Your task to perform on an android device: open a bookmark in the chrome app Image 0: 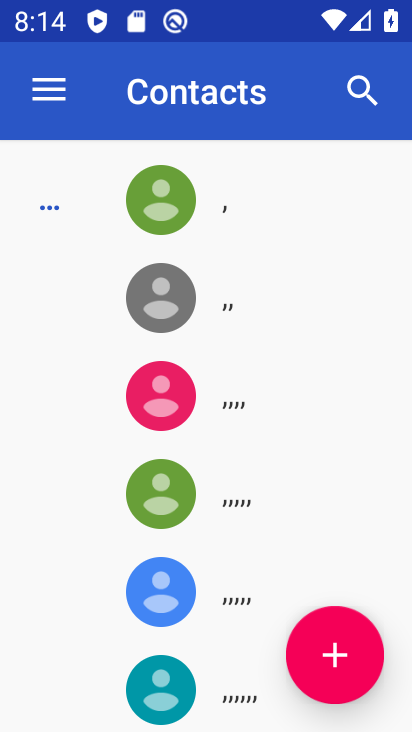
Step 0: press home button
Your task to perform on an android device: open a bookmark in the chrome app Image 1: 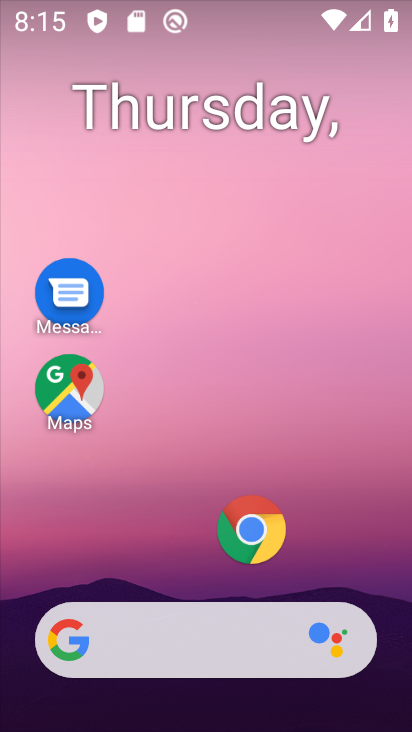
Step 1: click (244, 528)
Your task to perform on an android device: open a bookmark in the chrome app Image 2: 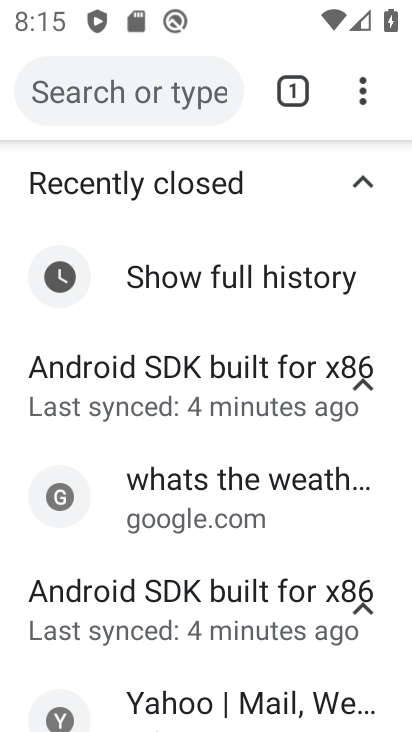
Step 2: click (351, 94)
Your task to perform on an android device: open a bookmark in the chrome app Image 3: 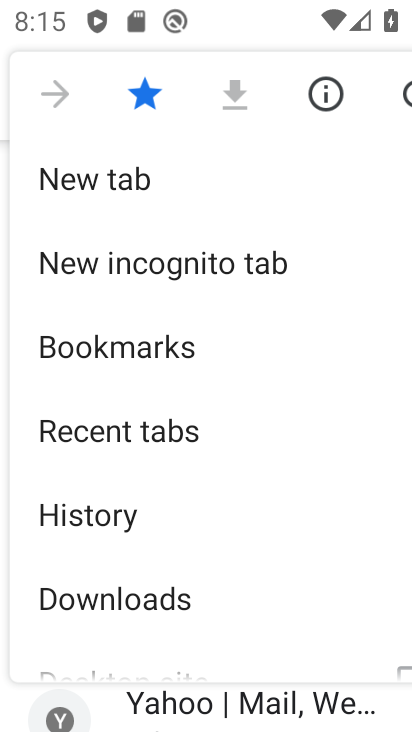
Step 3: click (117, 339)
Your task to perform on an android device: open a bookmark in the chrome app Image 4: 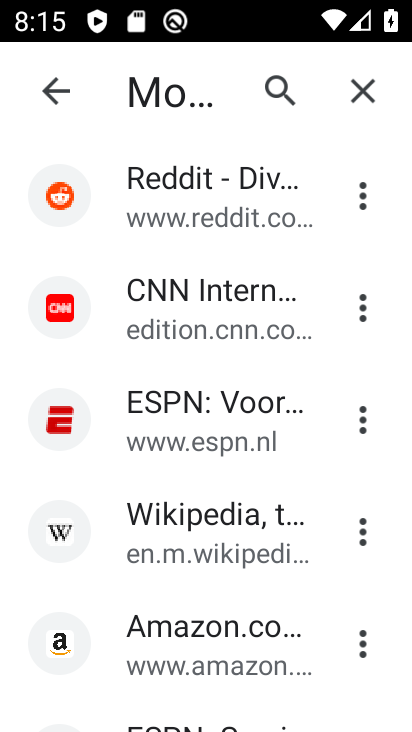
Step 4: click (194, 551)
Your task to perform on an android device: open a bookmark in the chrome app Image 5: 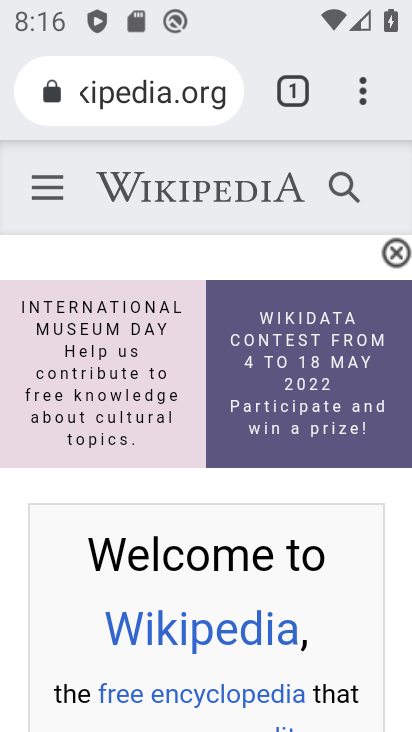
Step 5: task complete